Your task to perform on an android device: Search for sushi restaurants on Maps Image 0: 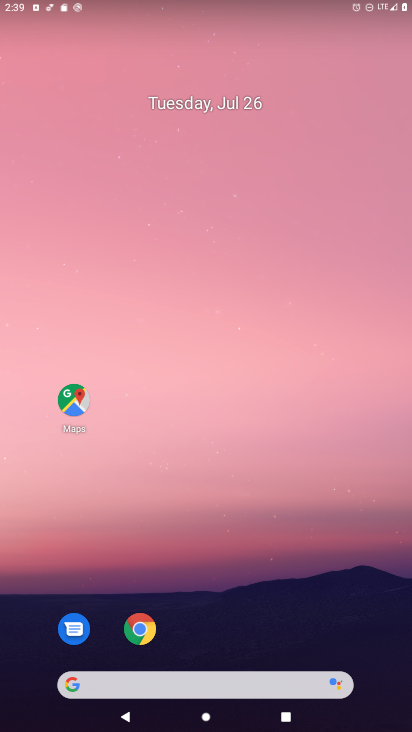
Step 0: click (74, 399)
Your task to perform on an android device: Search for sushi restaurants on Maps Image 1: 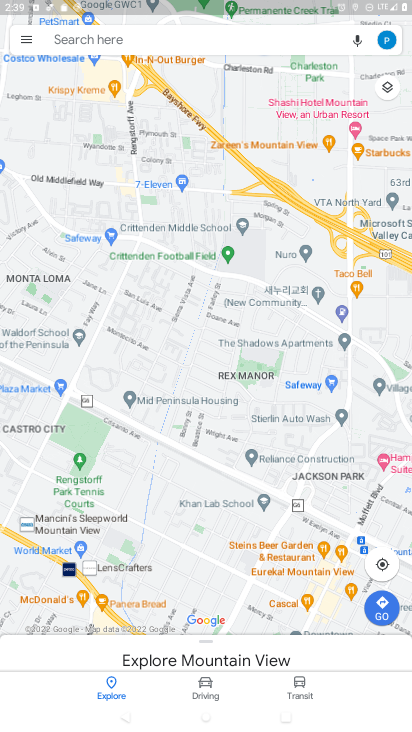
Step 1: click (95, 36)
Your task to perform on an android device: Search for sushi restaurants on Maps Image 2: 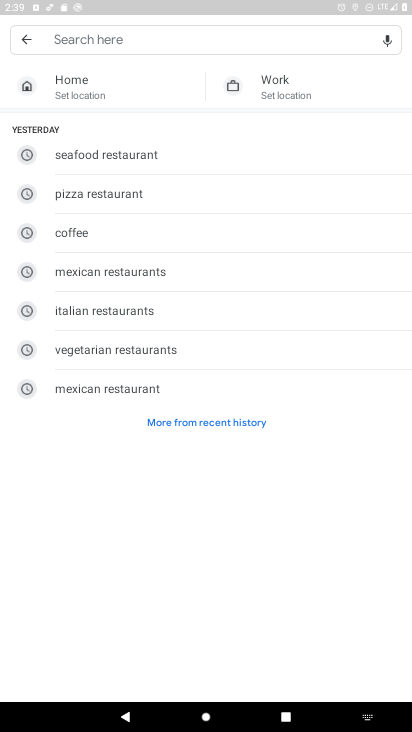
Step 2: type "sushi restaurants"
Your task to perform on an android device: Search for sushi restaurants on Maps Image 3: 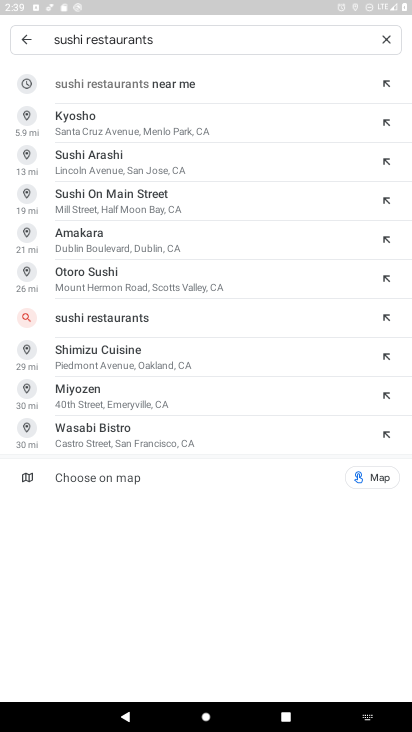
Step 3: click (90, 318)
Your task to perform on an android device: Search for sushi restaurants on Maps Image 4: 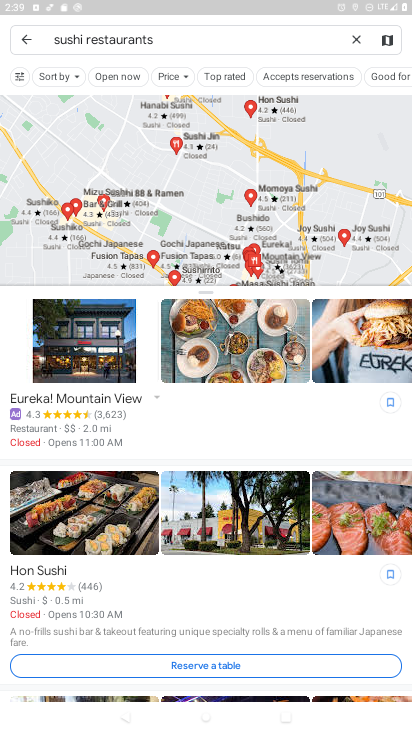
Step 4: task complete